Your task to perform on an android device: Go to ESPN.com Image 0: 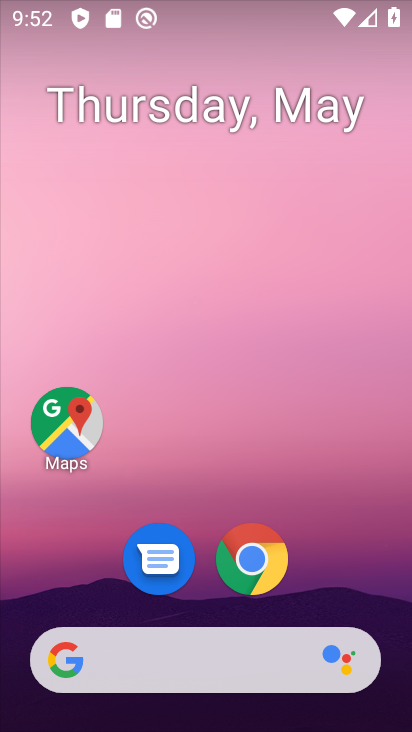
Step 0: drag from (364, 540) to (280, 6)
Your task to perform on an android device: Go to ESPN.com Image 1: 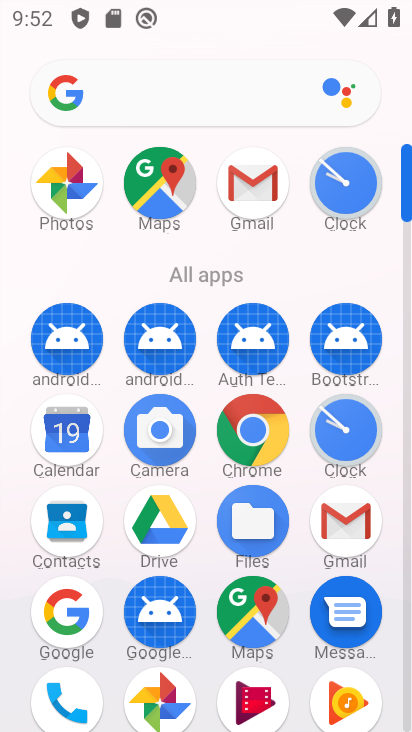
Step 1: click (239, 466)
Your task to perform on an android device: Go to ESPN.com Image 2: 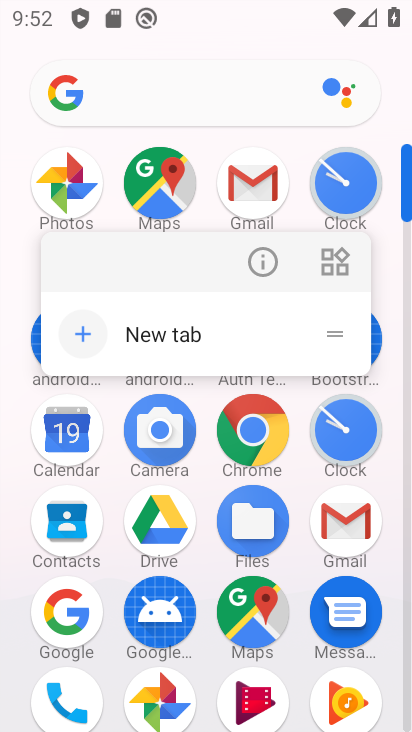
Step 2: click (259, 429)
Your task to perform on an android device: Go to ESPN.com Image 3: 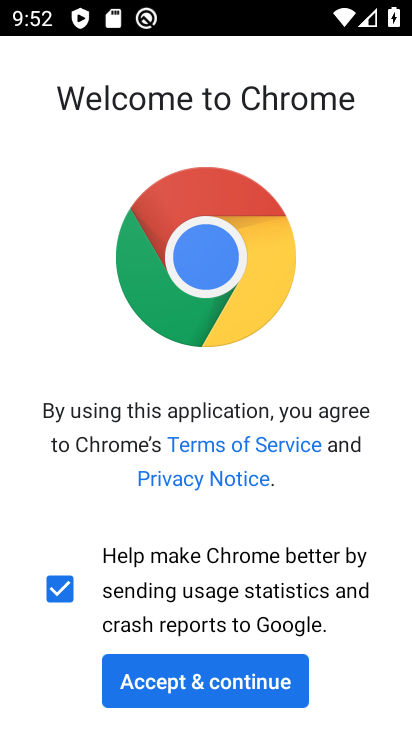
Step 3: click (193, 674)
Your task to perform on an android device: Go to ESPN.com Image 4: 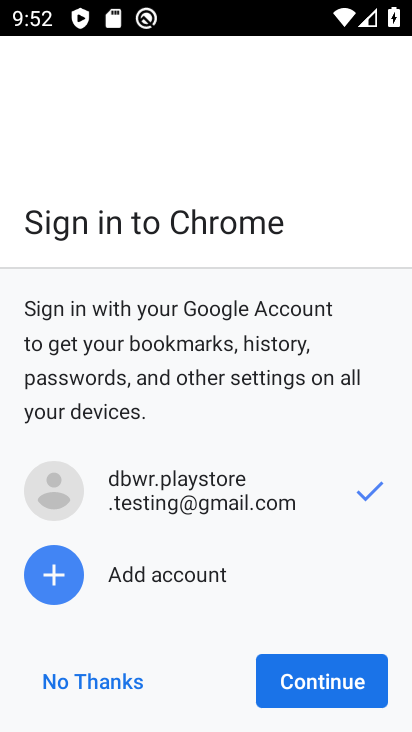
Step 4: click (118, 691)
Your task to perform on an android device: Go to ESPN.com Image 5: 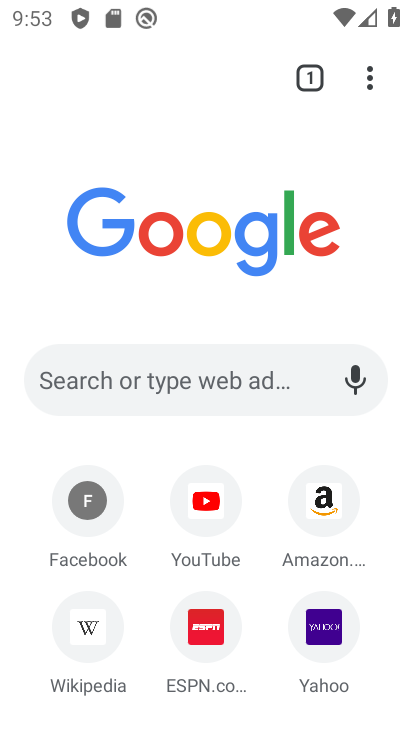
Step 5: click (198, 639)
Your task to perform on an android device: Go to ESPN.com Image 6: 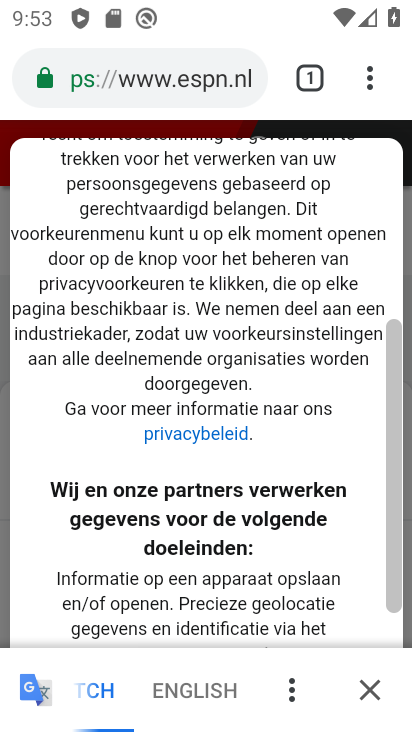
Step 6: task complete